Your task to perform on an android device: Show me the alarms in the clock app Image 0: 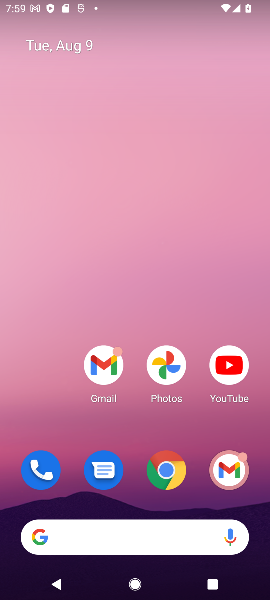
Step 0: drag from (112, 244) to (124, 28)
Your task to perform on an android device: Show me the alarms in the clock app Image 1: 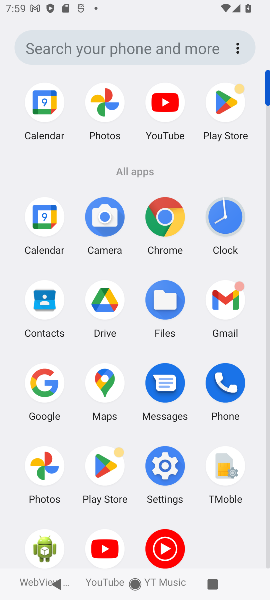
Step 1: drag from (131, 365) to (164, 3)
Your task to perform on an android device: Show me the alarms in the clock app Image 2: 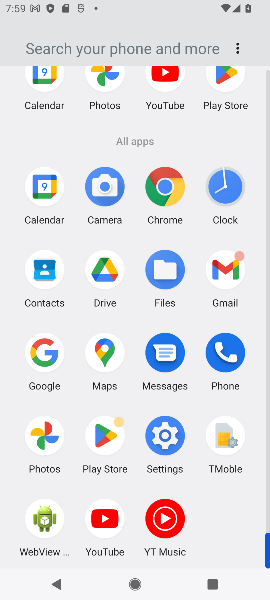
Step 2: click (226, 178)
Your task to perform on an android device: Show me the alarms in the clock app Image 3: 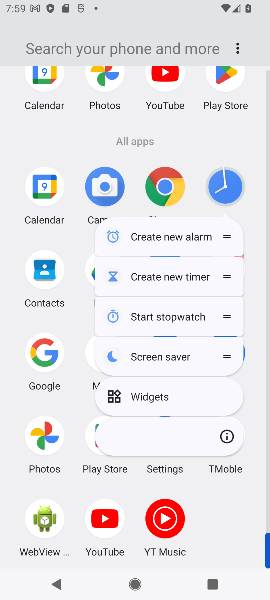
Step 3: click (230, 185)
Your task to perform on an android device: Show me the alarms in the clock app Image 4: 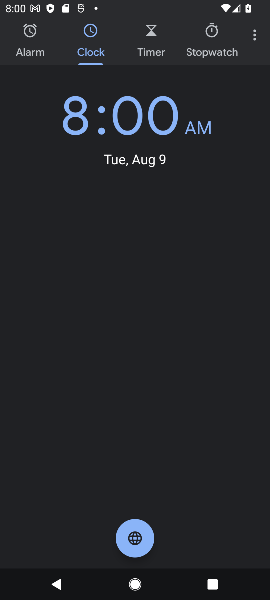
Step 4: click (24, 42)
Your task to perform on an android device: Show me the alarms in the clock app Image 5: 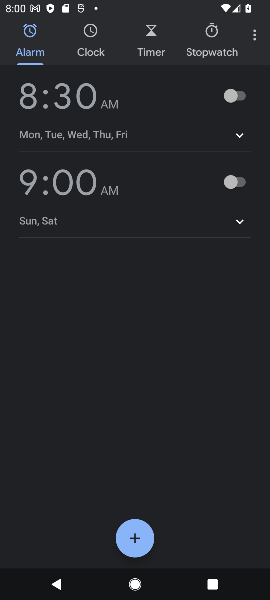
Step 5: task complete